Your task to perform on an android device: Go to calendar. Show me events next week Image 0: 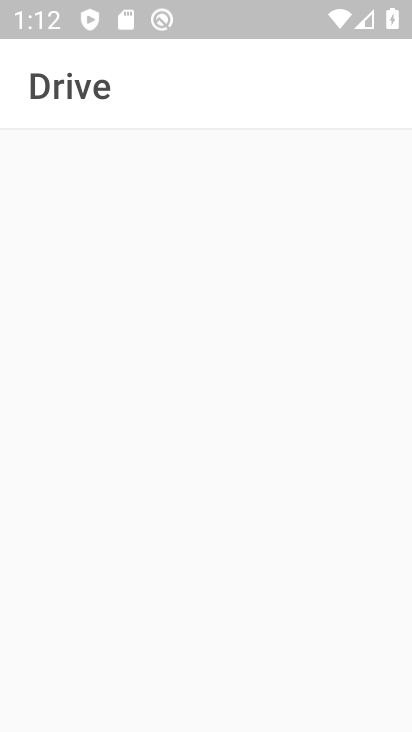
Step 0: press home button
Your task to perform on an android device: Go to calendar. Show me events next week Image 1: 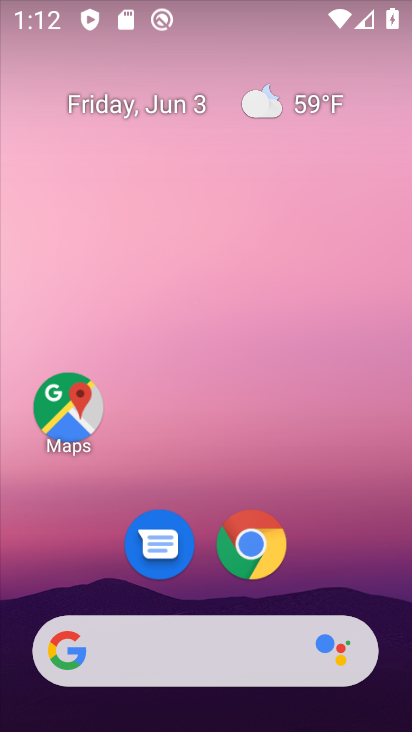
Step 1: drag from (185, 611) to (144, 11)
Your task to perform on an android device: Go to calendar. Show me events next week Image 2: 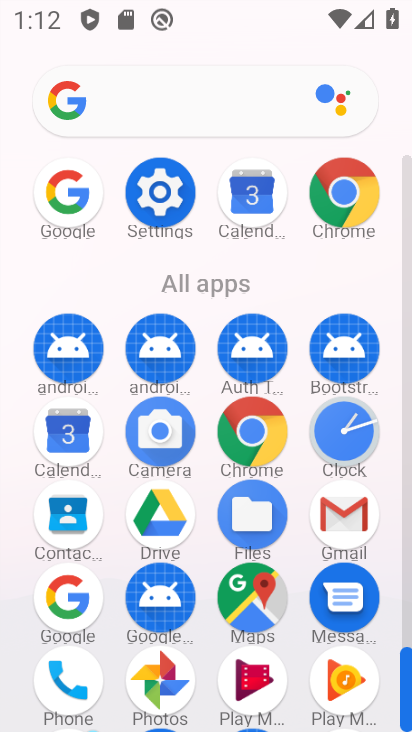
Step 2: click (88, 428)
Your task to perform on an android device: Go to calendar. Show me events next week Image 3: 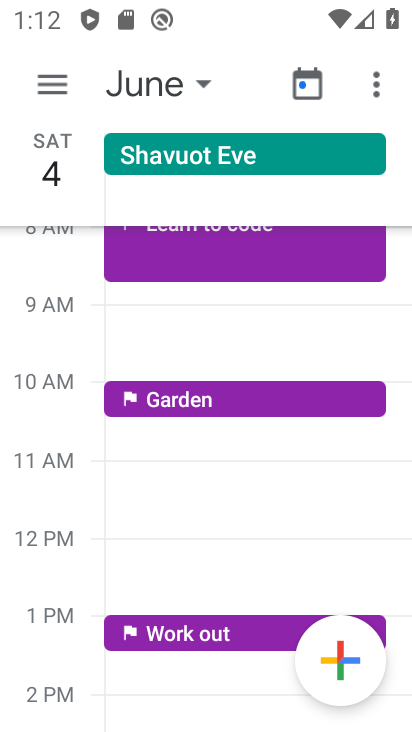
Step 3: click (63, 79)
Your task to perform on an android device: Go to calendar. Show me events next week Image 4: 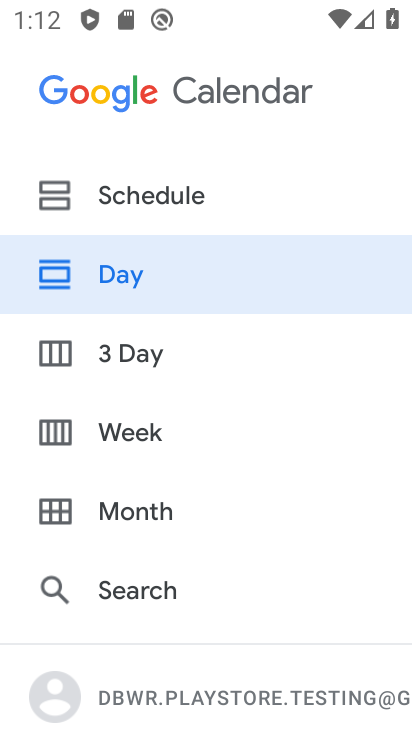
Step 4: click (120, 410)
Your task to perform on an android device: Go to calendar. Show me events next week Image 5: 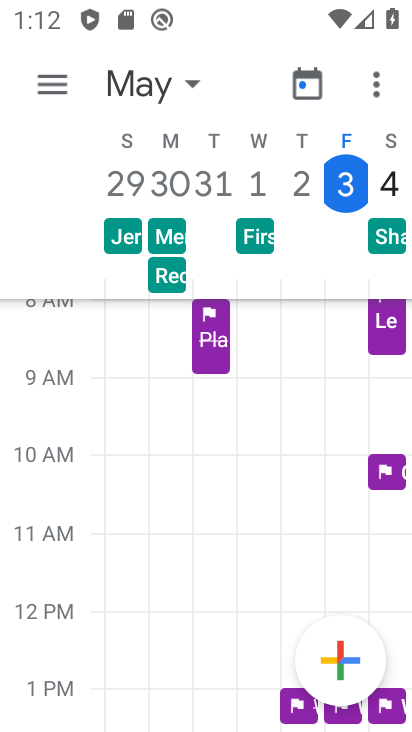
Step 5: task complete